Your task to perform on an android device: stop showing notifications on the lock screen Image 0: 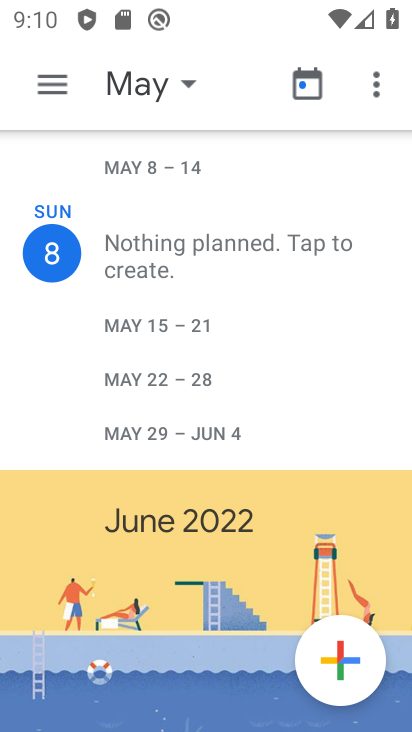
Step 0: press home button
Your task to perform on an android device: stop showing notifications on the lock screen Image 1: 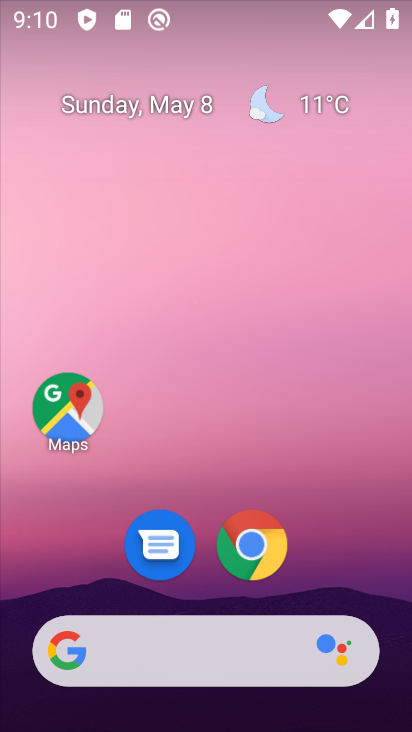
Step 1: drag from (227, 604) to (248, 2)
Your task to perform on an android device: stop showing notifications on the lock screen Image 2: 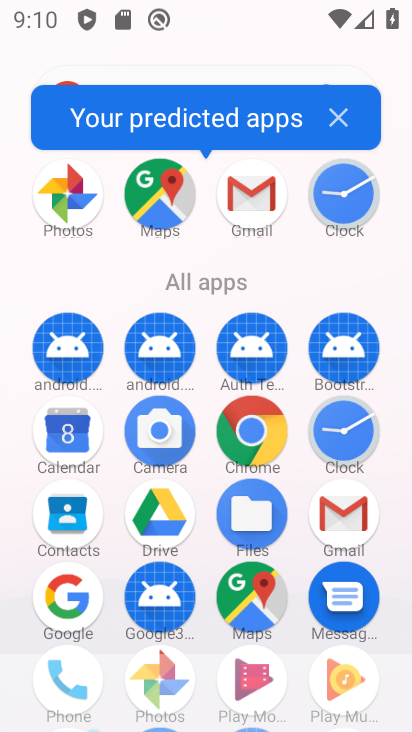
Step 2: drag from (112, 553) to (96, 102)
Your task to perform on an android device: stop showing notifications on the lock screen Image 3: 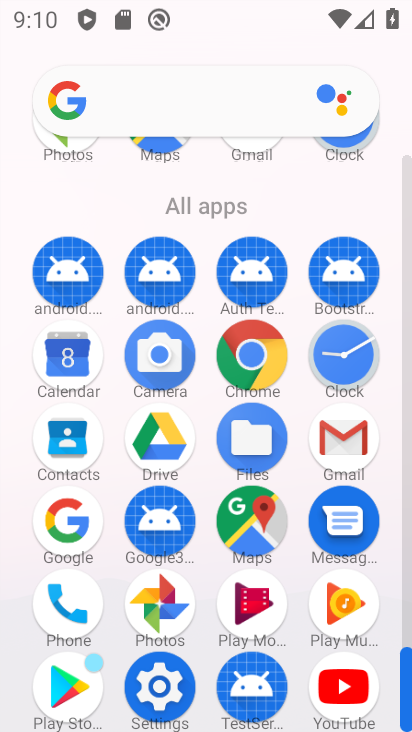
Step 3: click (170, 666)
Your task to perform on an android device: stop showing notifications on the lock screen Image 4: 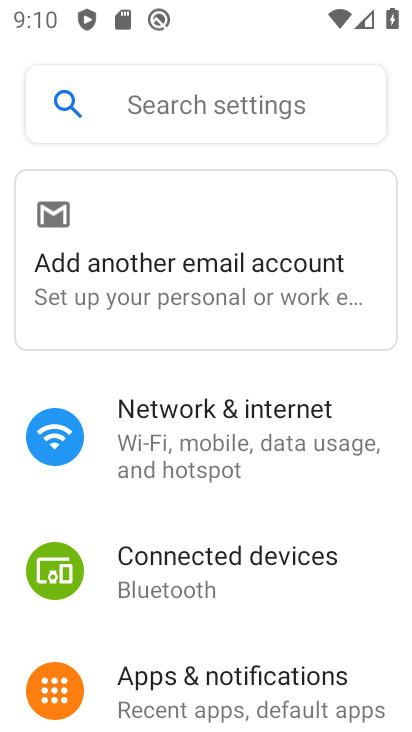
Step 4: click (200, 681)
Your task to perform on an android device: stop showing notifications on the lock screen Image 5: 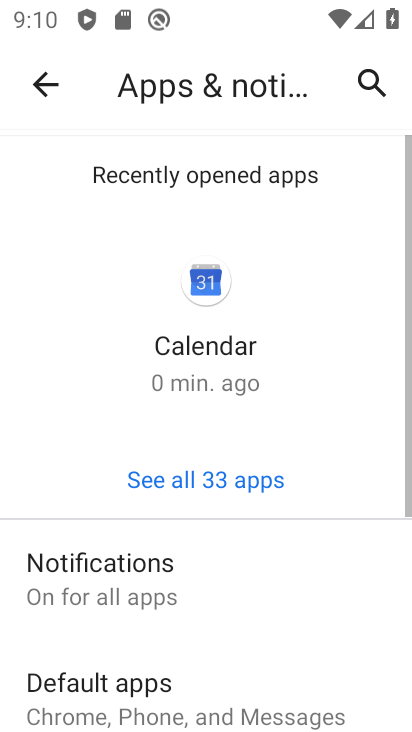
Step 5: click (151, 588)
Your task to perform on an android device: stop showing notifications on the lock screen Image 6: 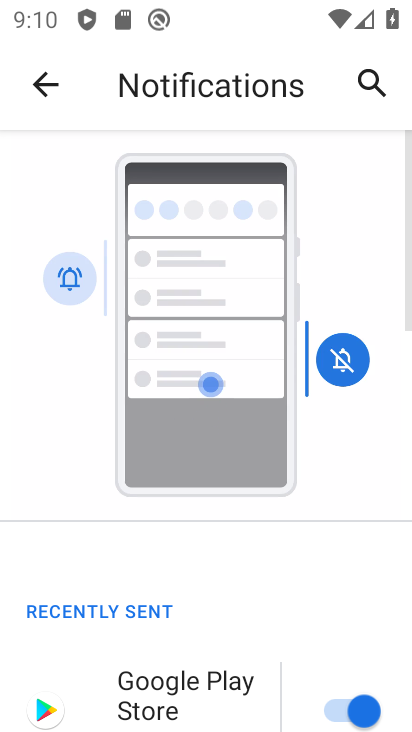
Step 6: drag from (190, 660) to (133, 183)
Your task to perform on an android device: stop showing notifications on the lock screen Image 7: 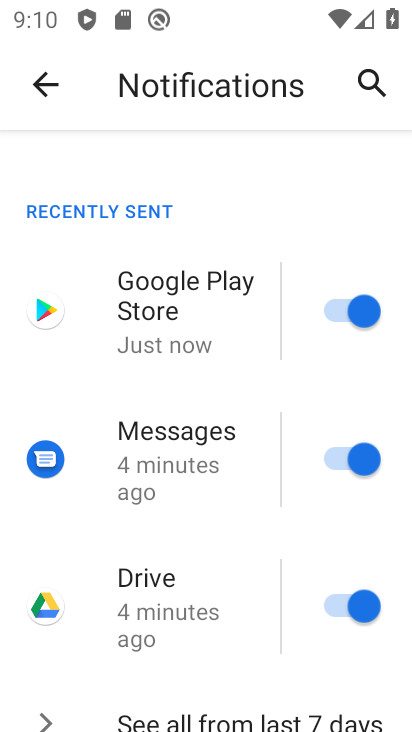
Step 7: drag from (241, 651) to (181, 161)
Your task to perform on an android device: stop showing notifications on the lock screen Image 8: 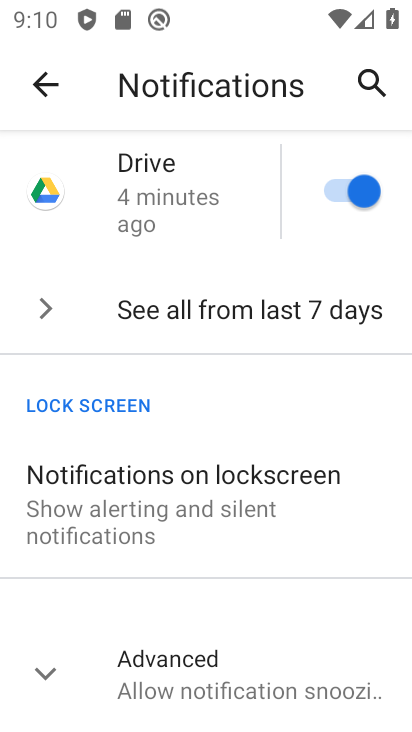
Step 8: click (192, 480)
Your task to perform on an android device: stop showing notifications on the lock screen Image 9: 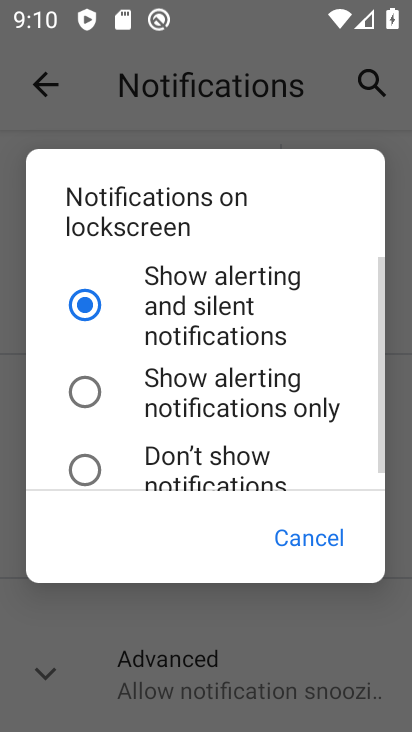
Step 9: click (168, 442)
Your task to perform on an android device: stop showing notifications on the lock screen Image 10: 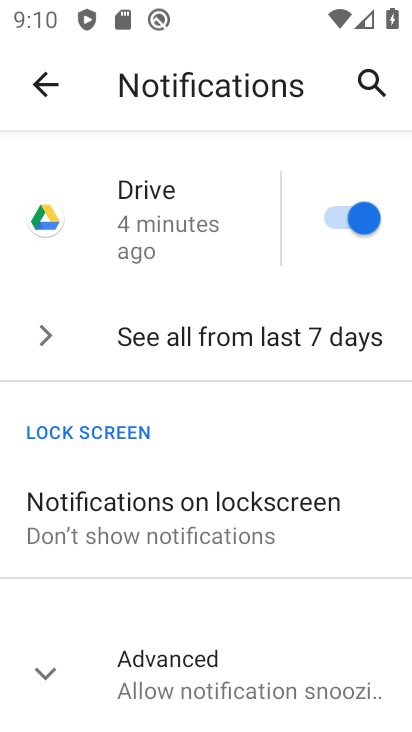
Step 10: task complete